Your task to perform on an android device: turn off priority inbox in the gmail app Image 0: 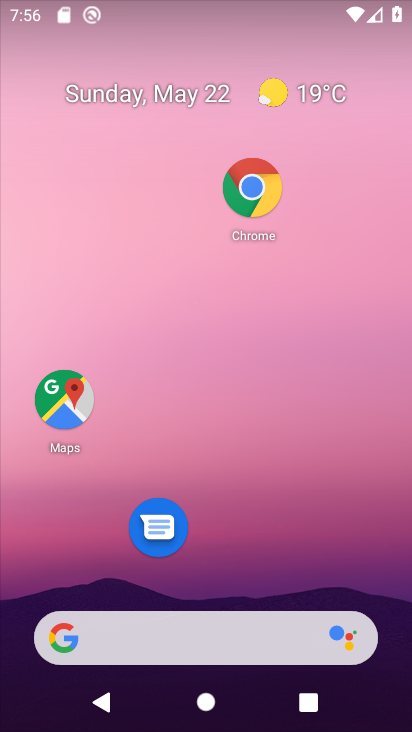
Step 0: press home button
Your task to perform on an android device: turn off priority inbox in the gmail app Image 1: 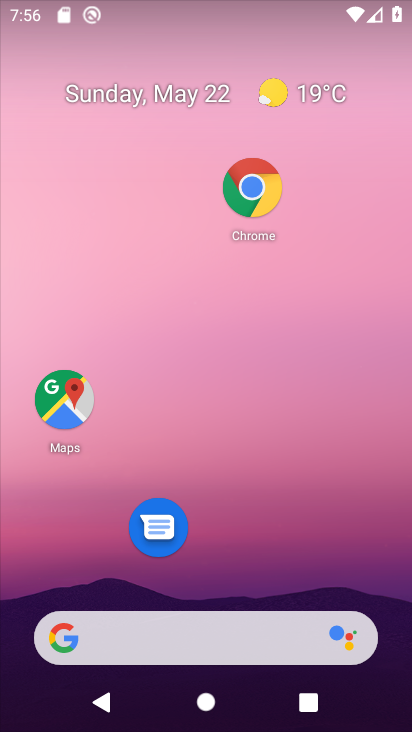
Step 1: drag from (229, 573) to (224, 88)
Your task to perform on an android device: turn off priority inbox in the gmail app Image 2: 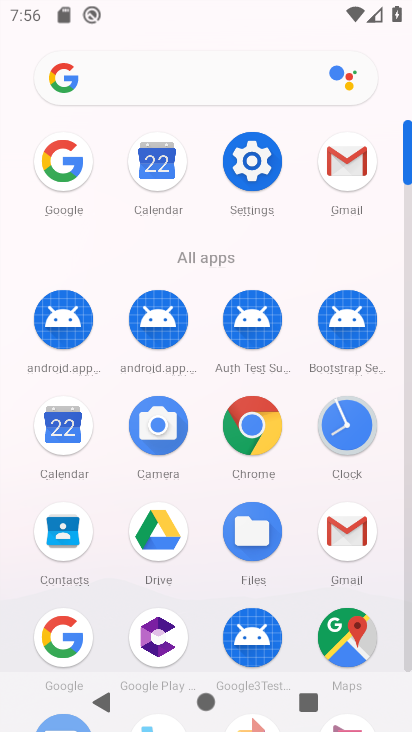
Step 2: click (348, 156)
Your task to perform on an android device: turn off priority inbox in the gmail app Image 3: 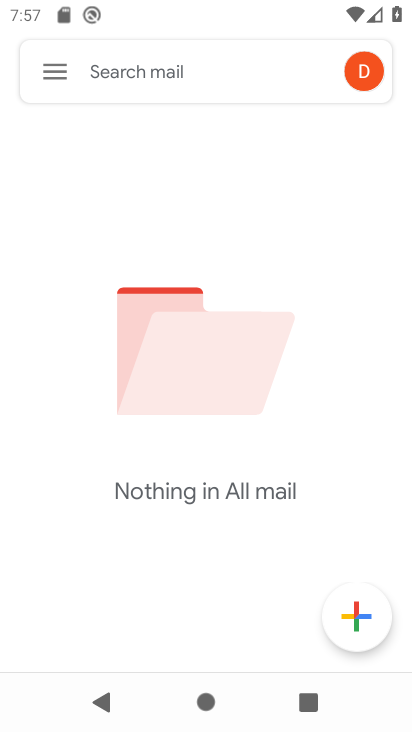
Step 3: click (51, 57)
Your task to perform on an android device: turn off priority inbox in the gmail app Image 4: 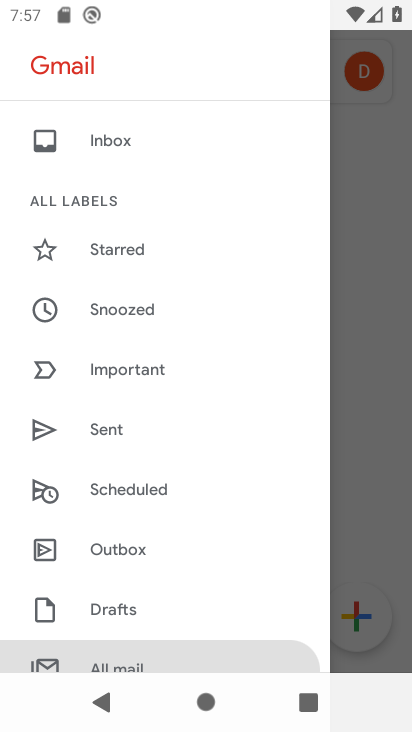
Step 4: drag from (159, 636) to (172, 73)
Your task to perform on an android device: turn off priority inbox in the gmail app Image 5: 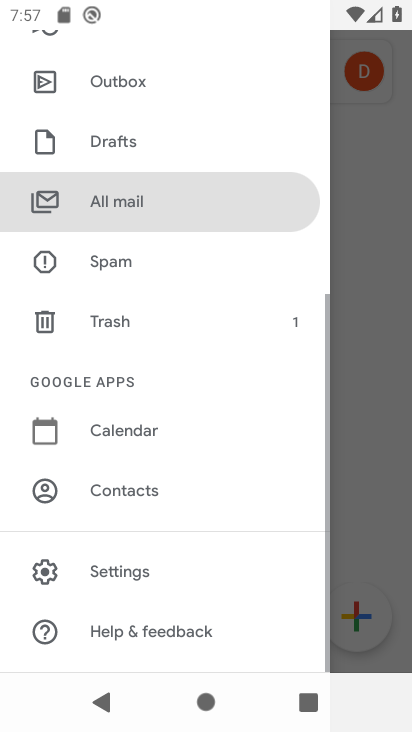
Step 5: click (150, 563)
Your task to perform on an android device: turn off priority inbox in the gmail app Image 6: 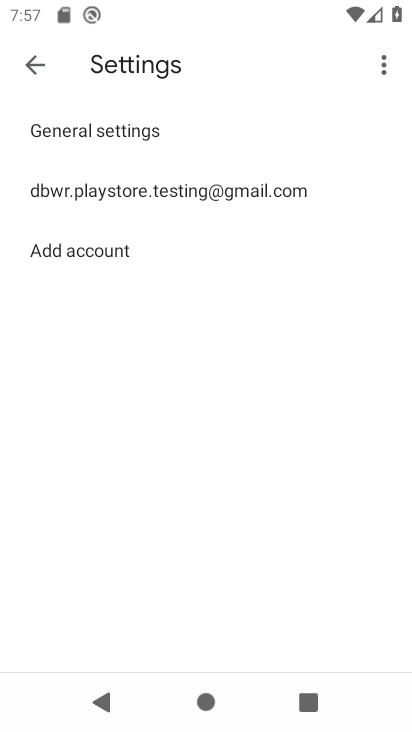
Step 6: click (164, 126)
Your task to perform on an android device: turn off priority inbox in the gmail app Image 7: 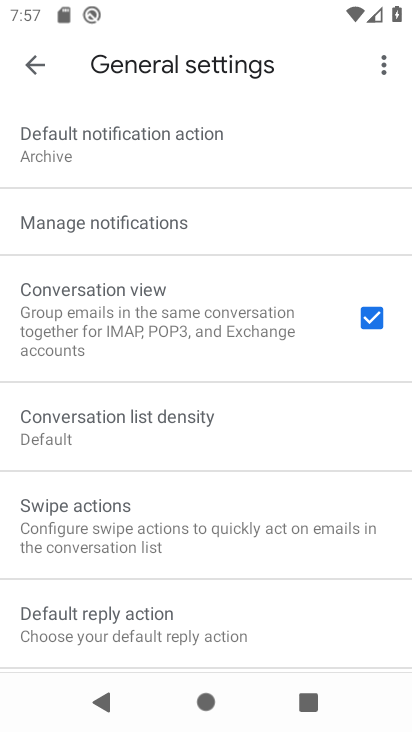
Step 7: click (201, 218)
Your task to perform on an android device: turn off priority inbox in the gmail app Image 8: 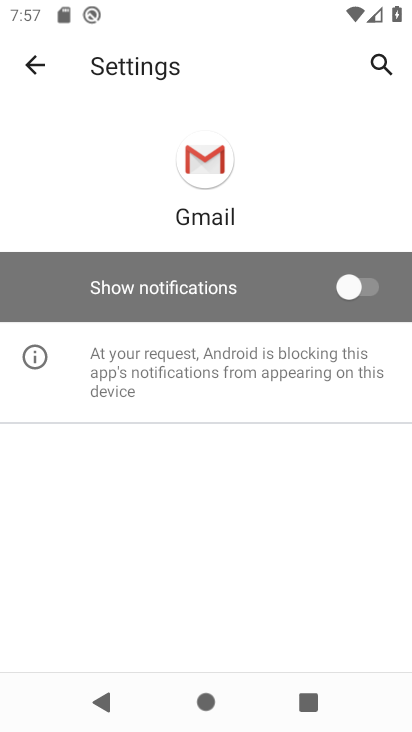
Step 8: click (46, 54)
Your task to perform on an android device: turn off priority inbox in the gmail app Image 9: 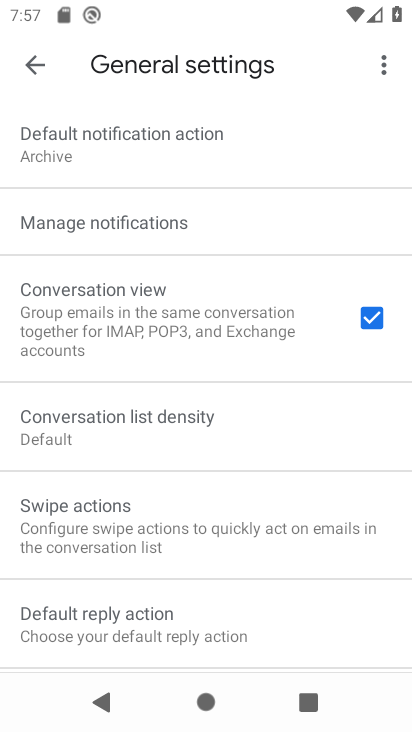
Step 9: click (44, 74)
Your task to perform on an android device: turn off priority inbox in the gmail app Image 10: 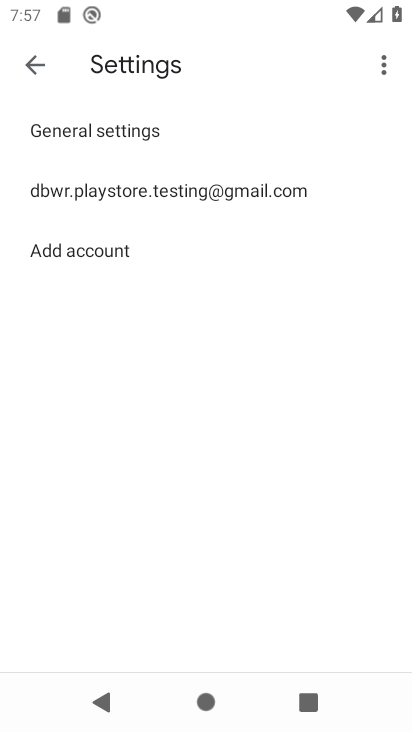
Step 10: click (314, 191)
Your task to perform on an android device: turn off priority inbox in the gmail app Image 11: 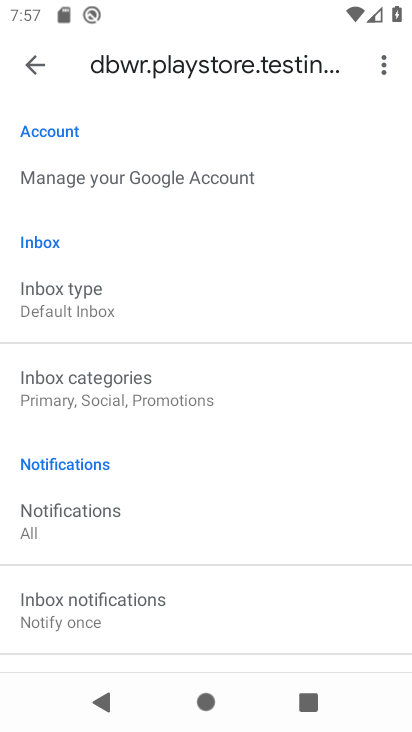
Step 11: click (121, 306)
Your task to perform on an android device: turn off priority inbox in the gmail app Image 12: 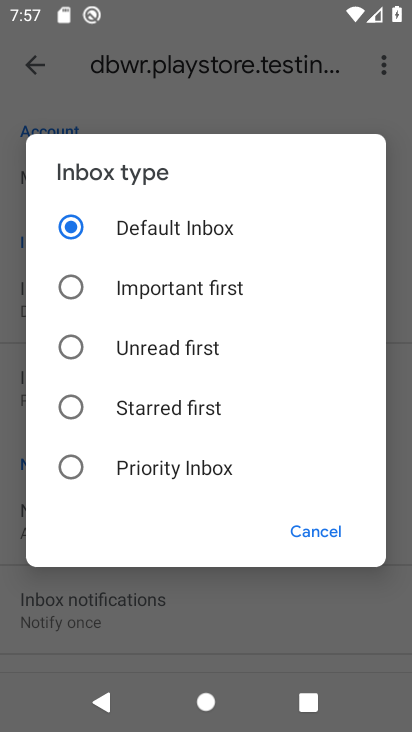
Step 12: click (72, 407)
Your task to perform on an android device: turn off priority inbox in the gmail app Image 13: 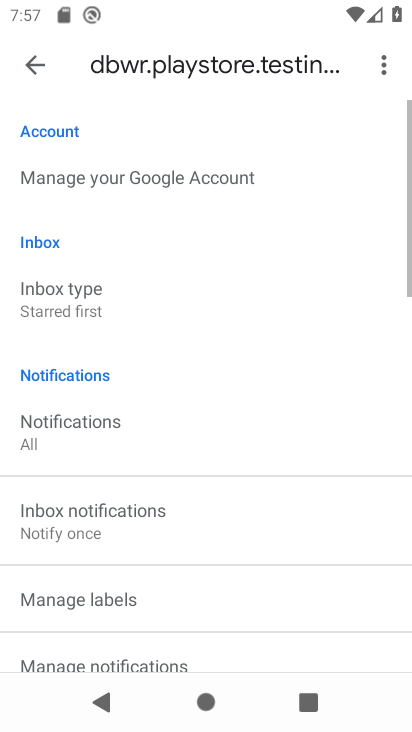
Step 13: task complete